Your task to perform on an android device: Add usb-c to the cart on target, then select checkout. Image 0: 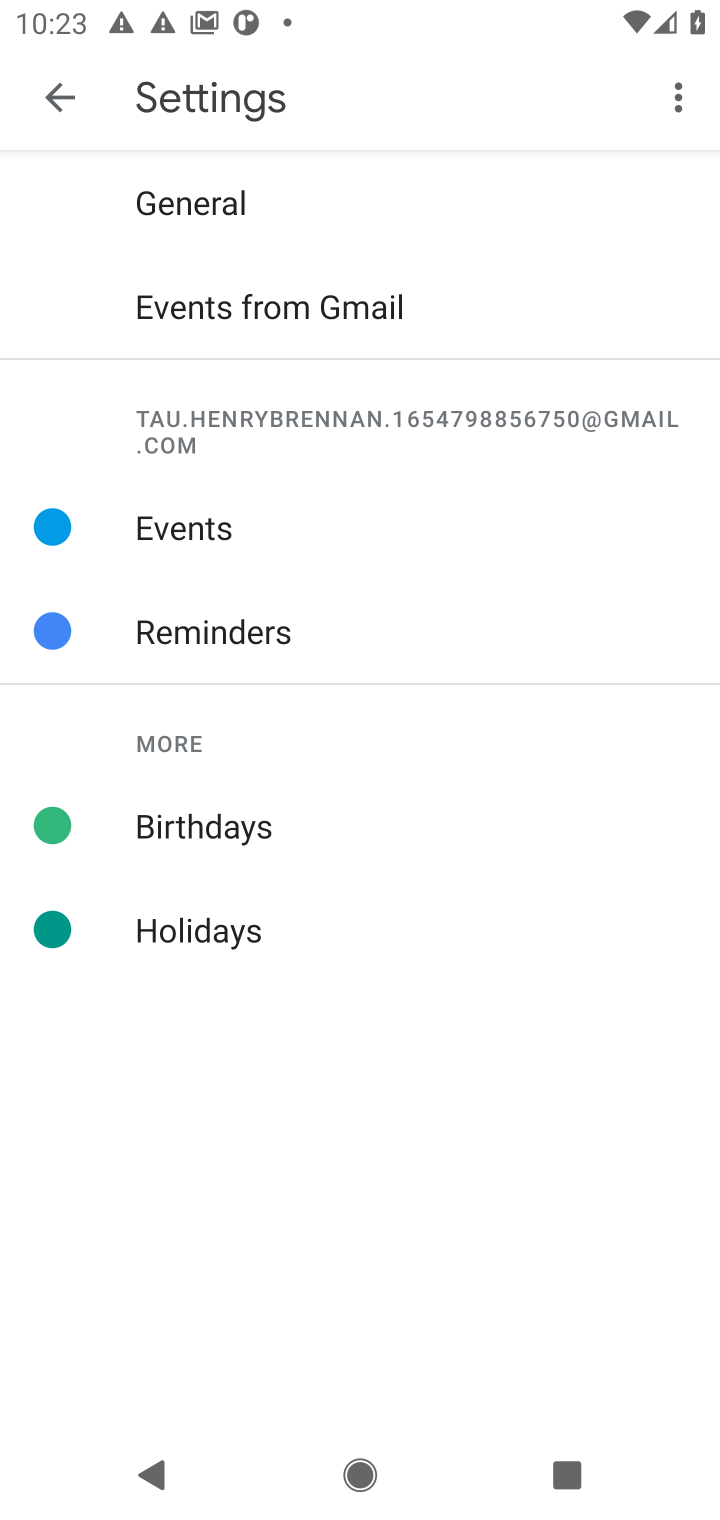
Step 0: press home button
Your task to perform on an android device: Add usb-c to the cart on target, then select checkout. Image 1: 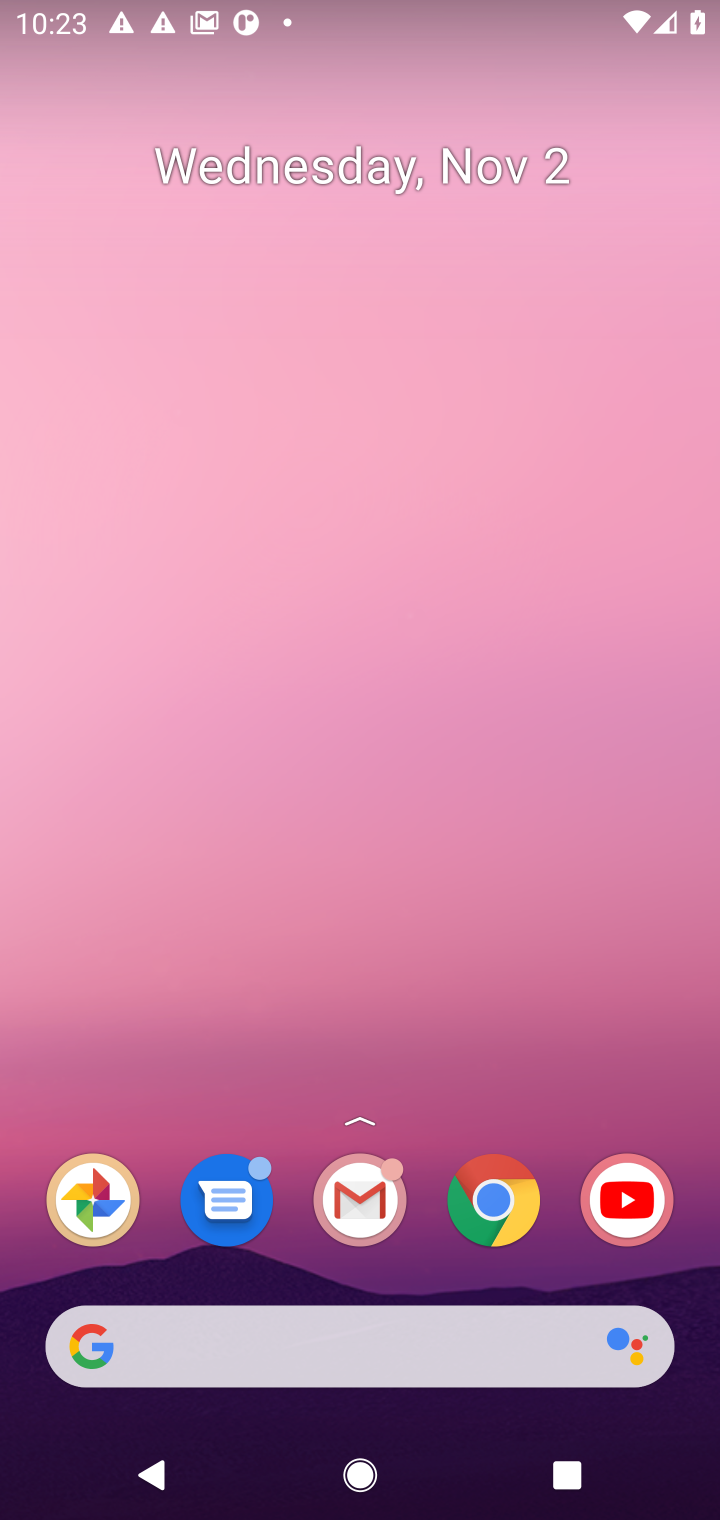
Step 1: click (520, 1187)
Your task to perform on an android device: Add usb-c to the cart on target, then select checkout. Image 2: 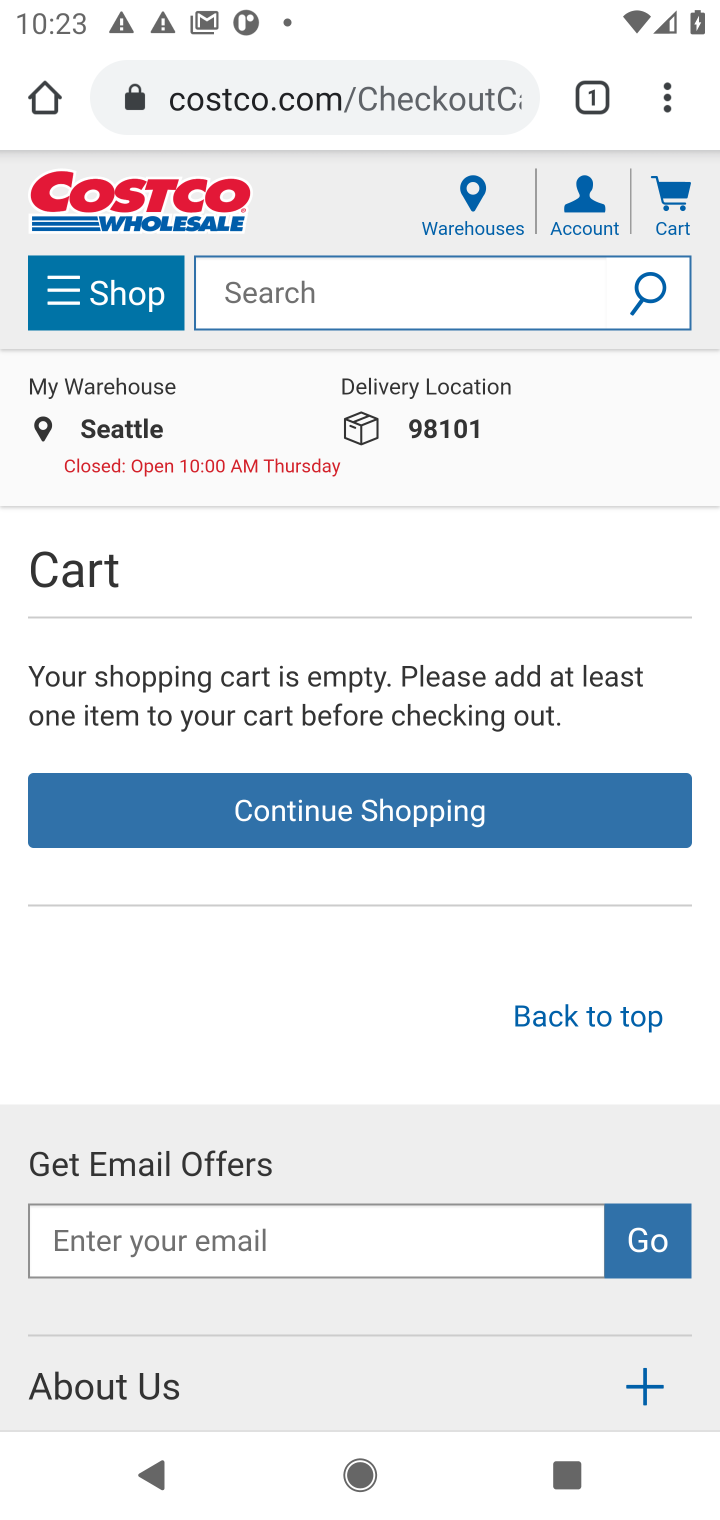
Step 2: click (417, 107)
Your task to perform on an android device: Add usb-c to the cart on target, then select checkout. Image 3: 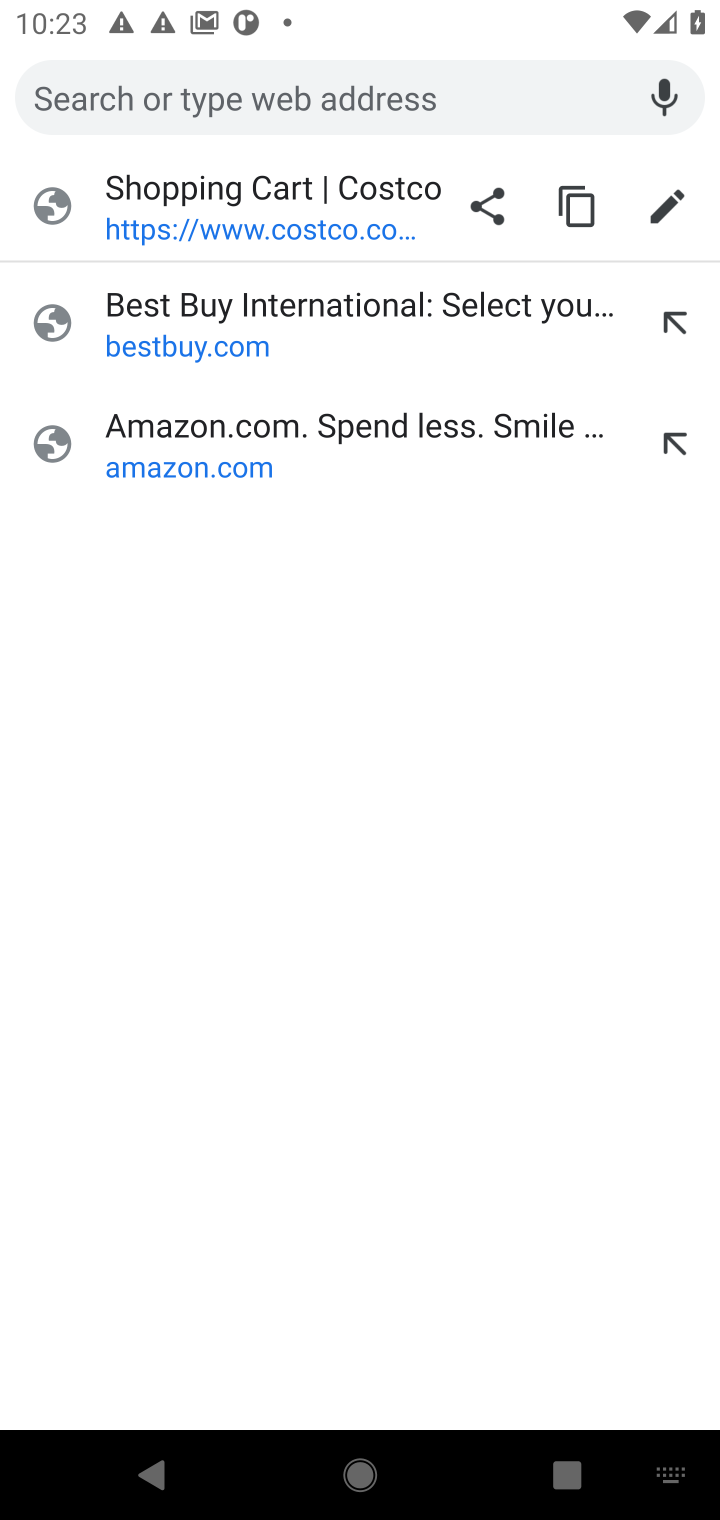
Step 3: type "target"
Your task to perform on an android device: Add usb-c to the cart on target, then select checkout. Image 4: 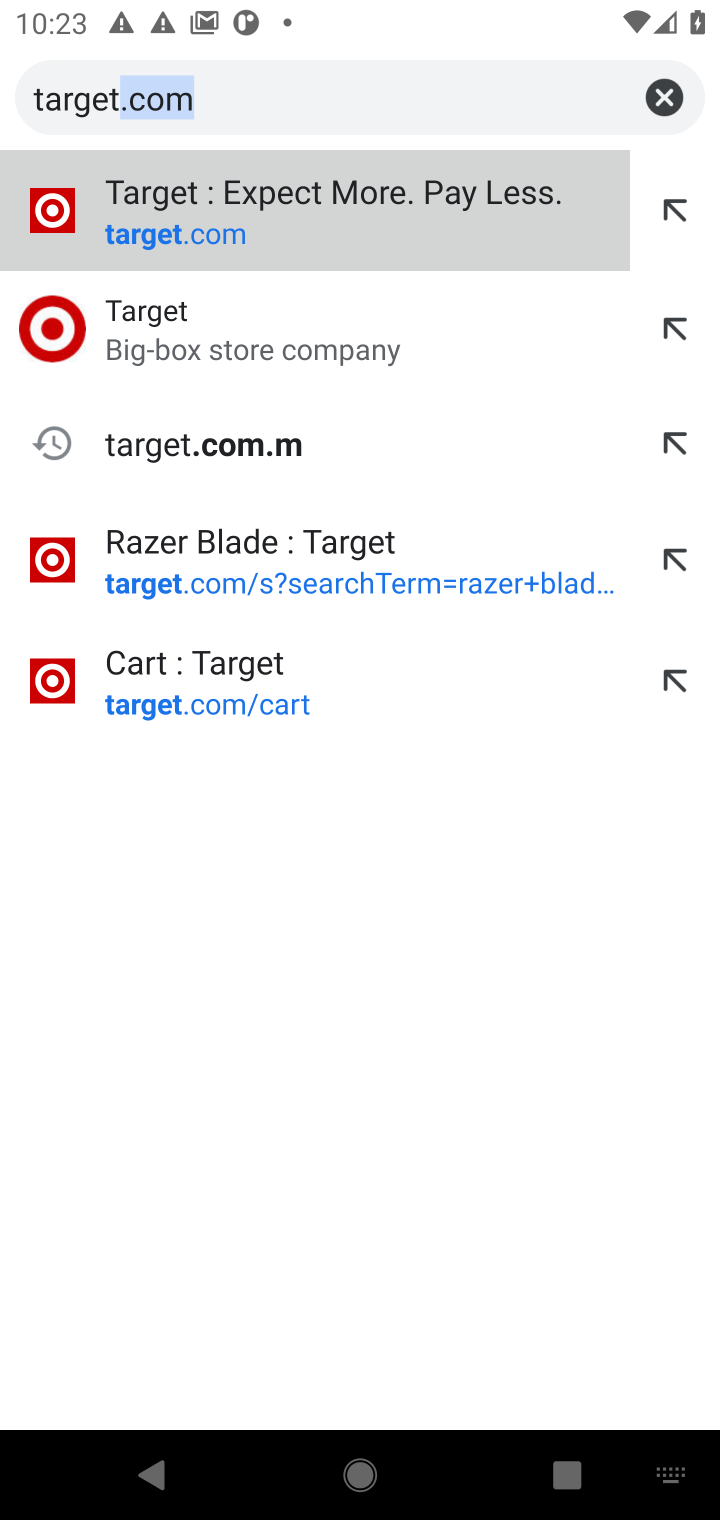
Step 4: press enter
Your task to perform on an android device: Add usb-c to the cart on target, then select checkout. Image 5: 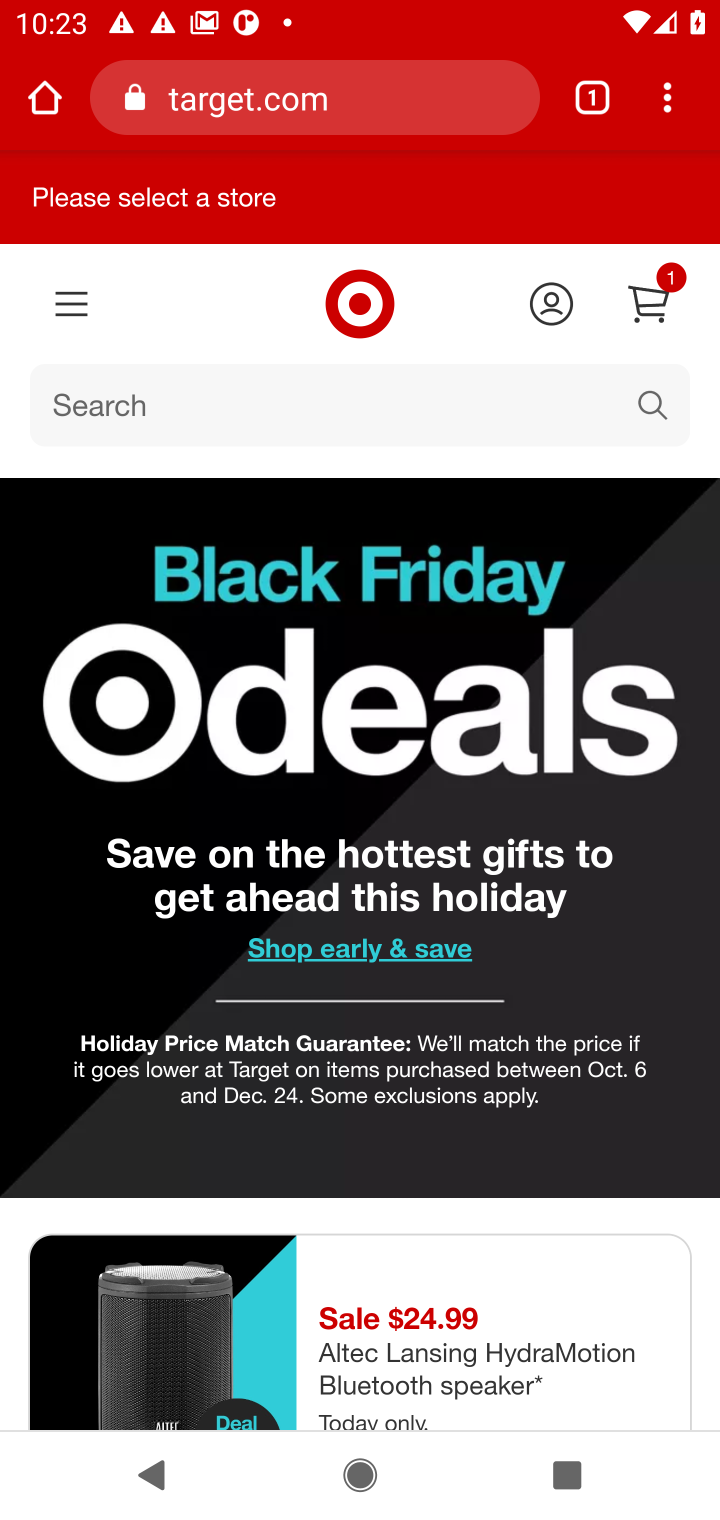
Step 5: click (480, 401)
Your task to perform on an android device: Add usb-c to the cart on target, then select checkout. Image 6: 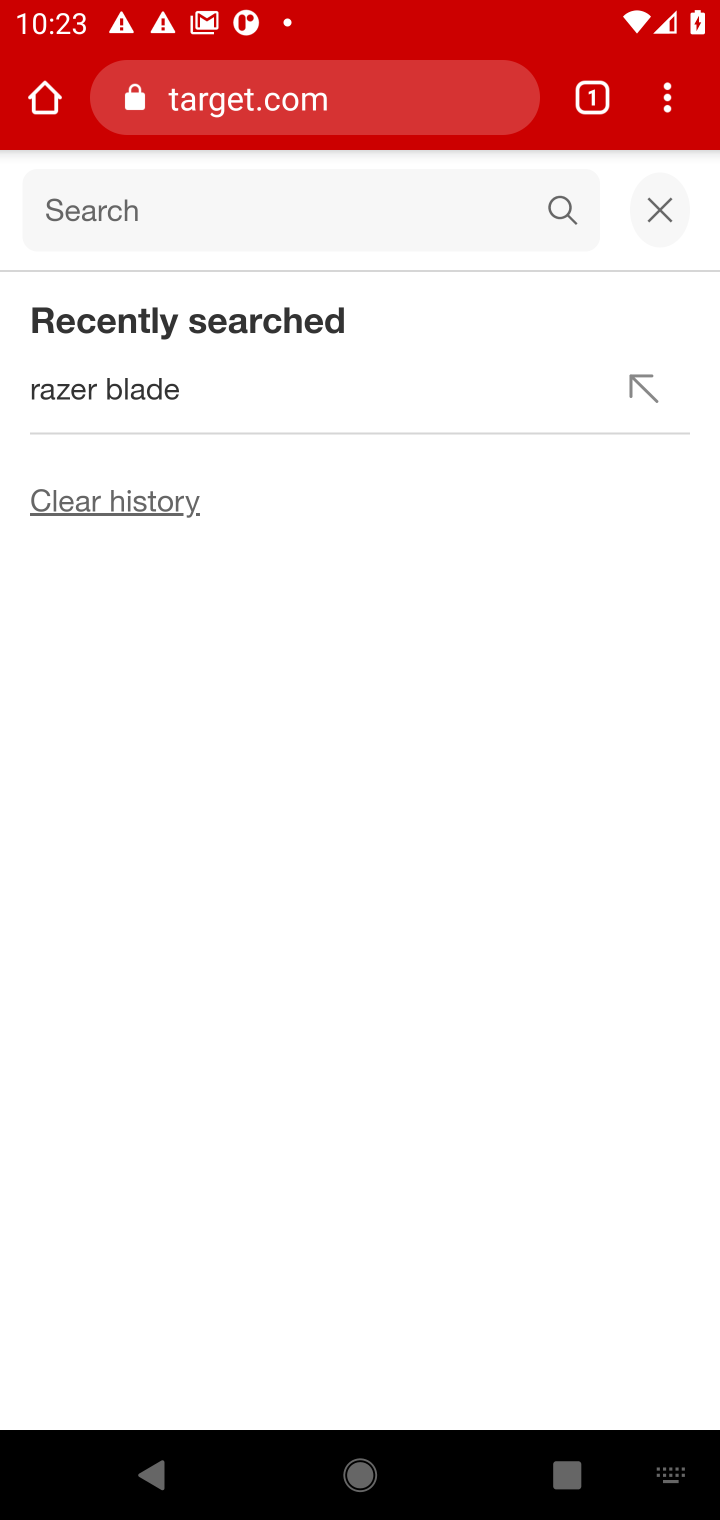
Step 6: type "usb-c "
Your task to perform on an android device: Add usb-c to the cart on target, then select checkout. Image 7: 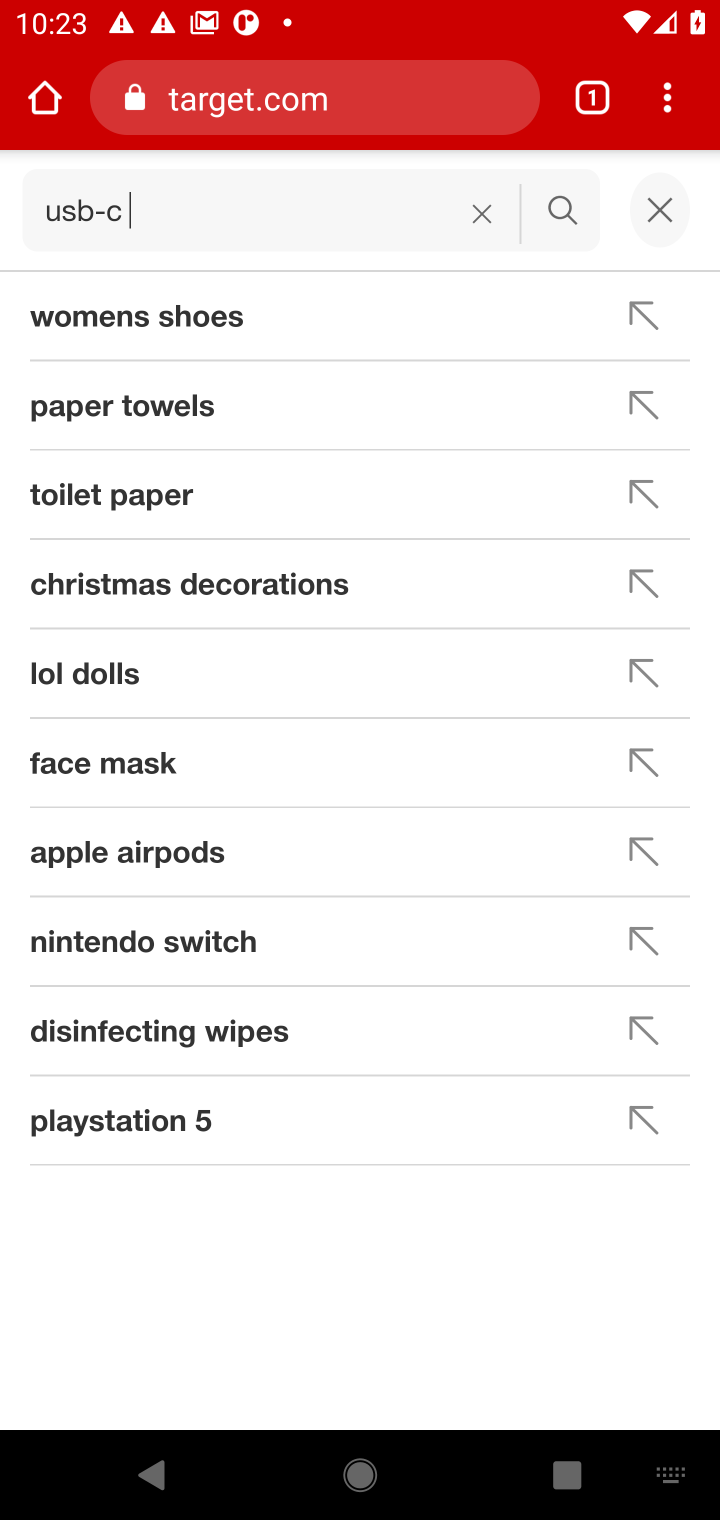
Step 7: press enter
Your task to perform on an android device: Add usb-c to the cart on target, then select checkout. Image 8: 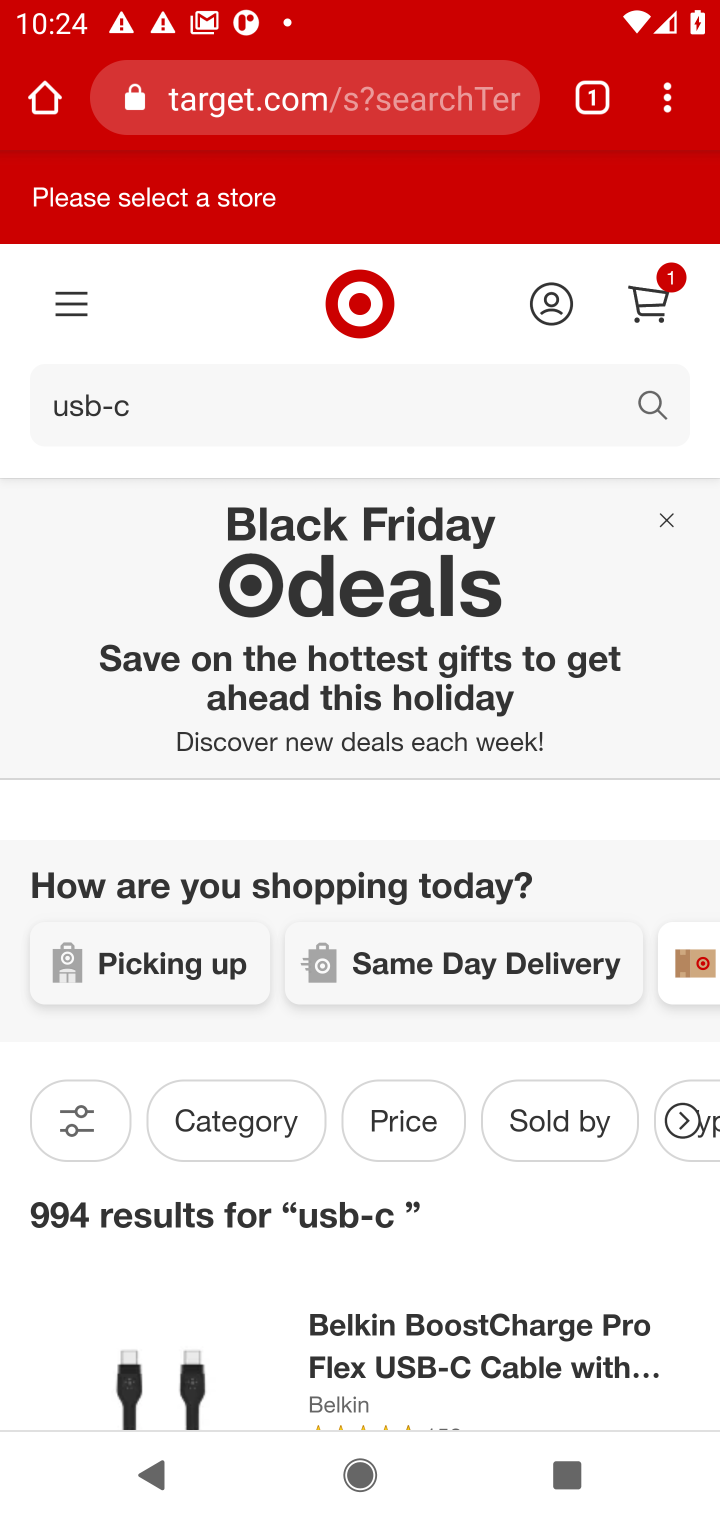
Step 8: drag from (527, 1230) to (536, 795)
Your task to perform on an android device: Add usb-c to the cart on target, then select checkout. Image 9: 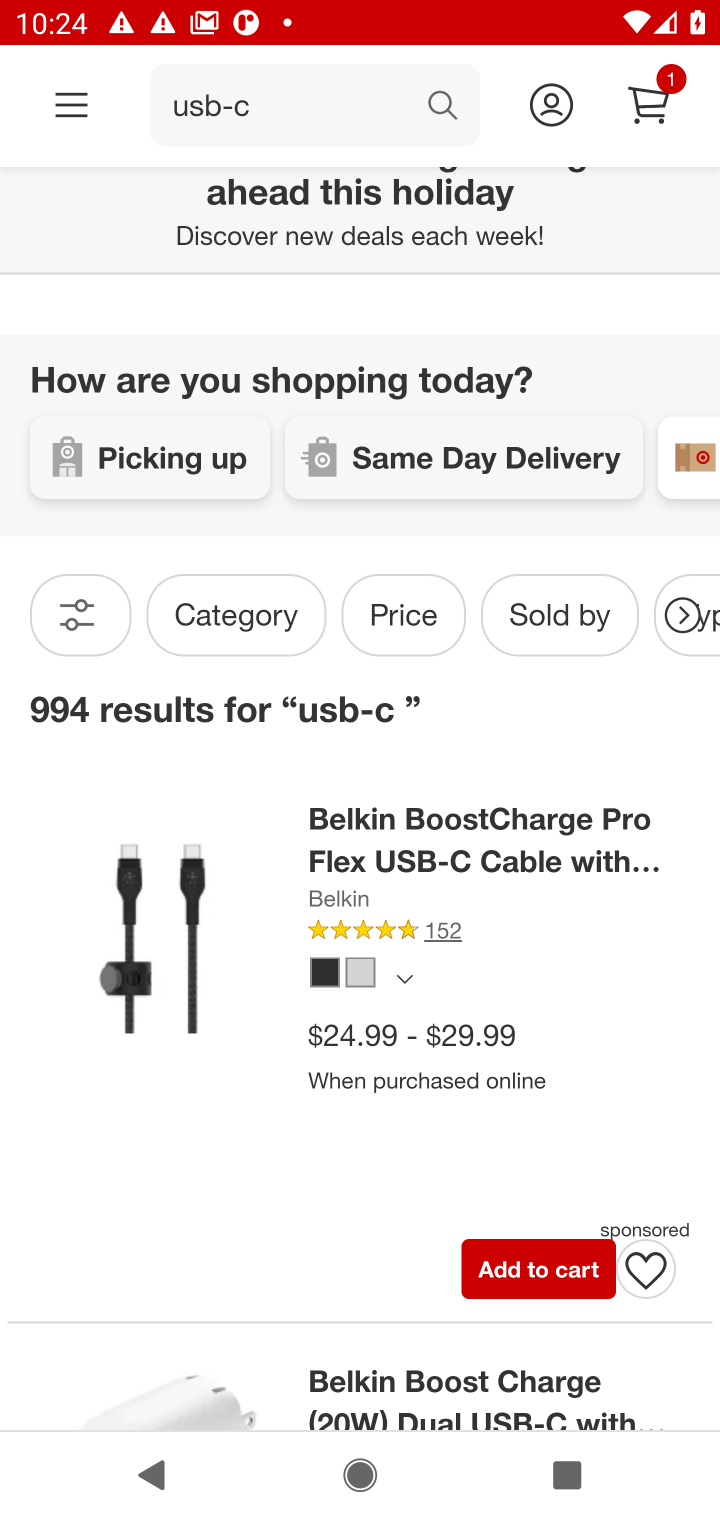
Step 9: click (154, 902)
Your task to perform on an android device: Add usb-c to the cart on target, then select checkout. Image 10: 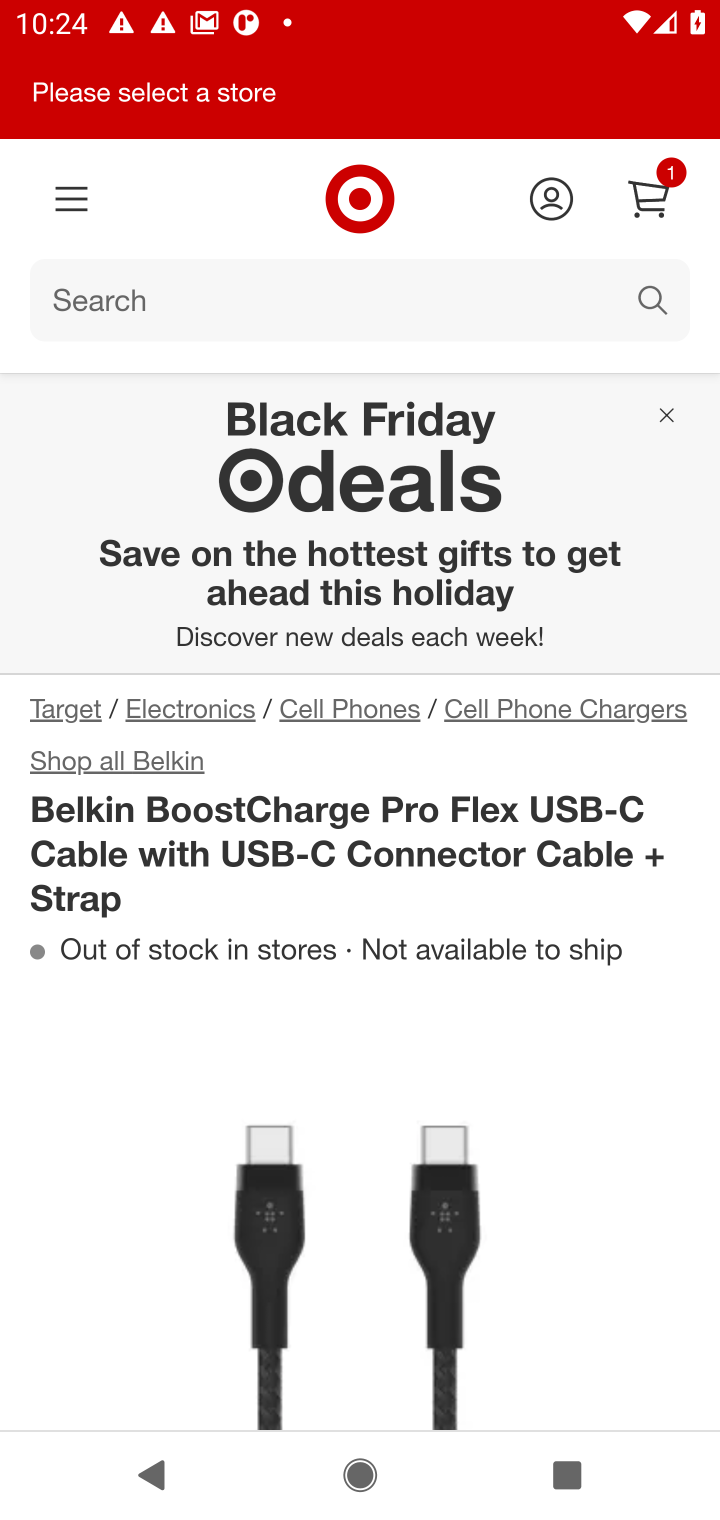
Step 10: drag from (338, 962) to (495, 364)
Your task to perform on an android device: Add usb-c to the cart on target, then select checkout. Image 11: 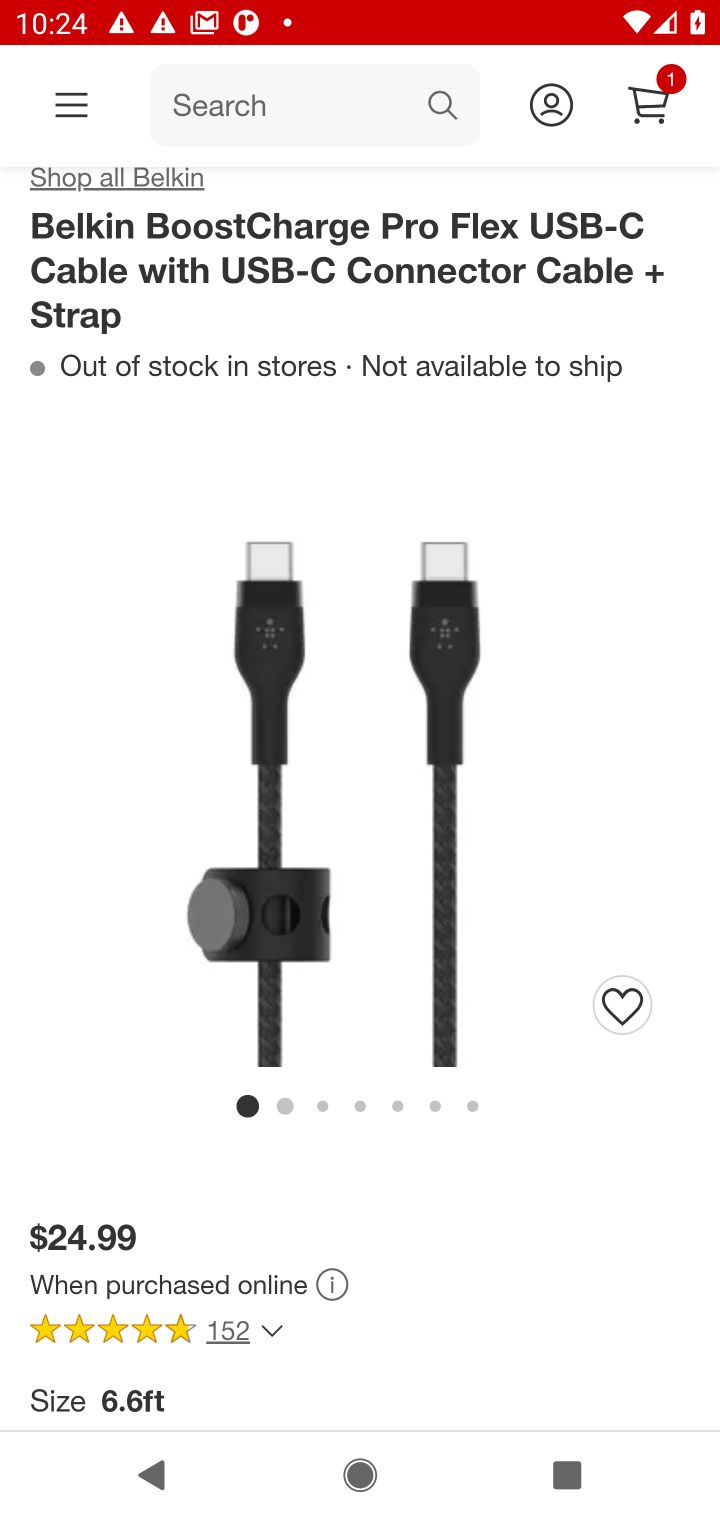
Step 11: drag from (461, 1212) to (517, 590)
Your task to perform on an android device: Add usb-c to the cart on target, then select checkout. Image 12: 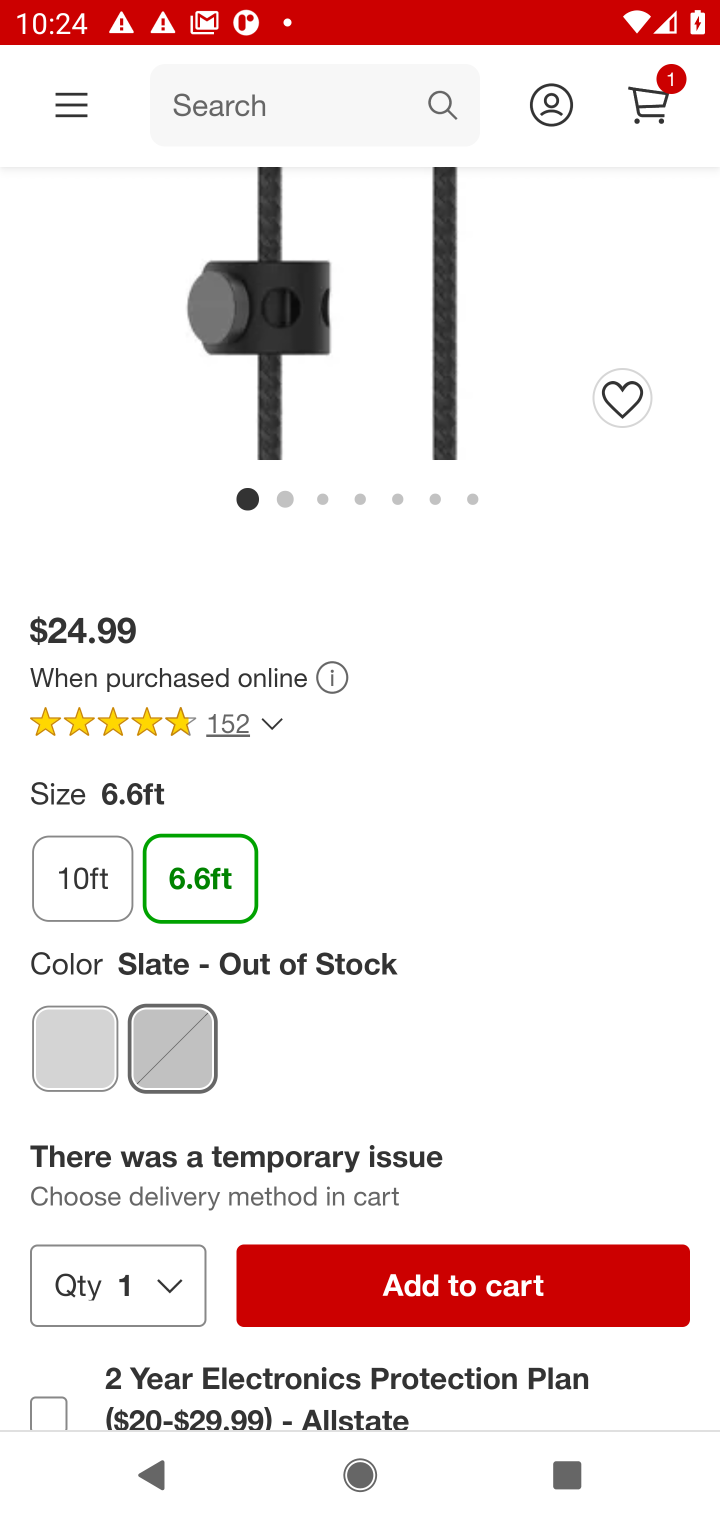
Step 12: click (508, 1285)
Your task to perform on an android device: Add usb-c to the cart on target, then select checkout. Image 13: 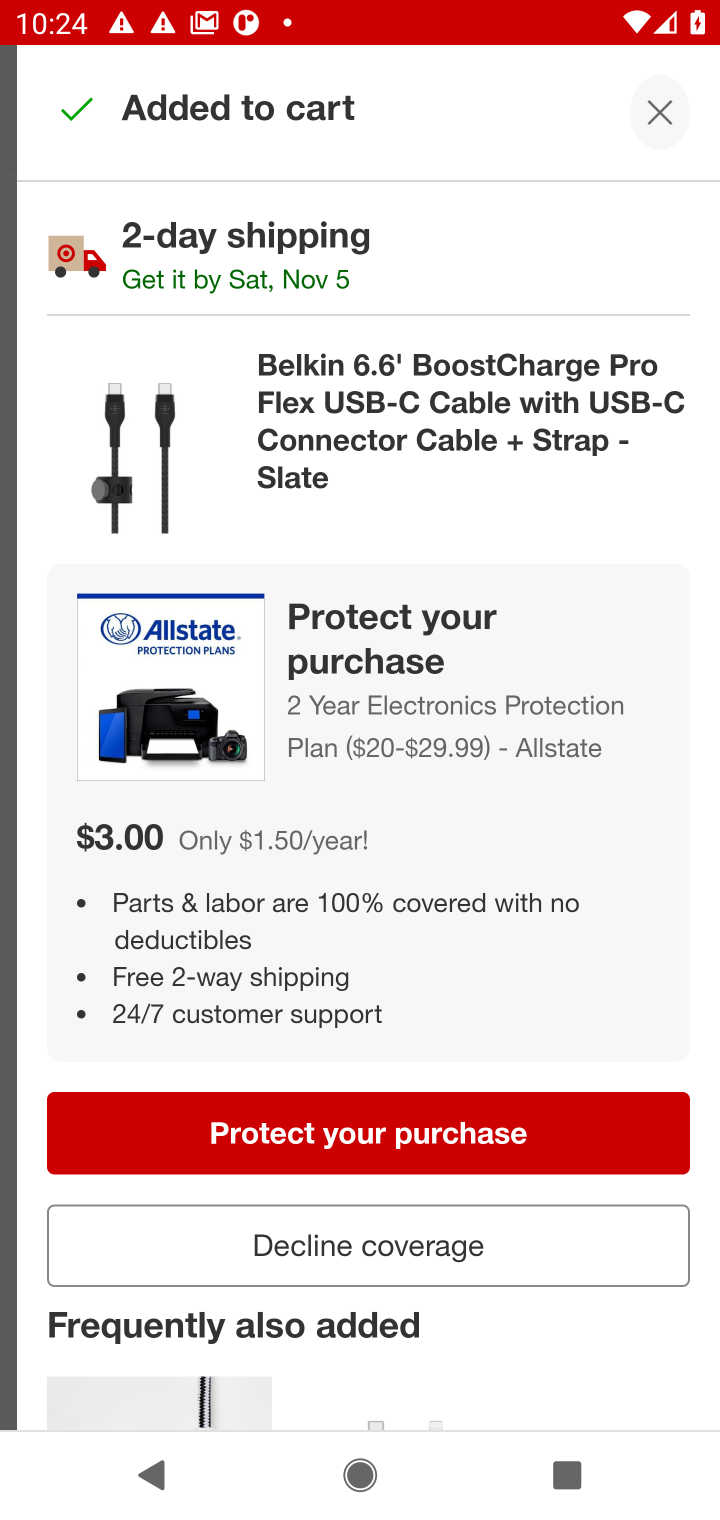
Step 13: drag from (624, 882) to (608, 412)
Your task to perform on an android device: Add usb-c to the cart on target, then select checkout. Image 14: 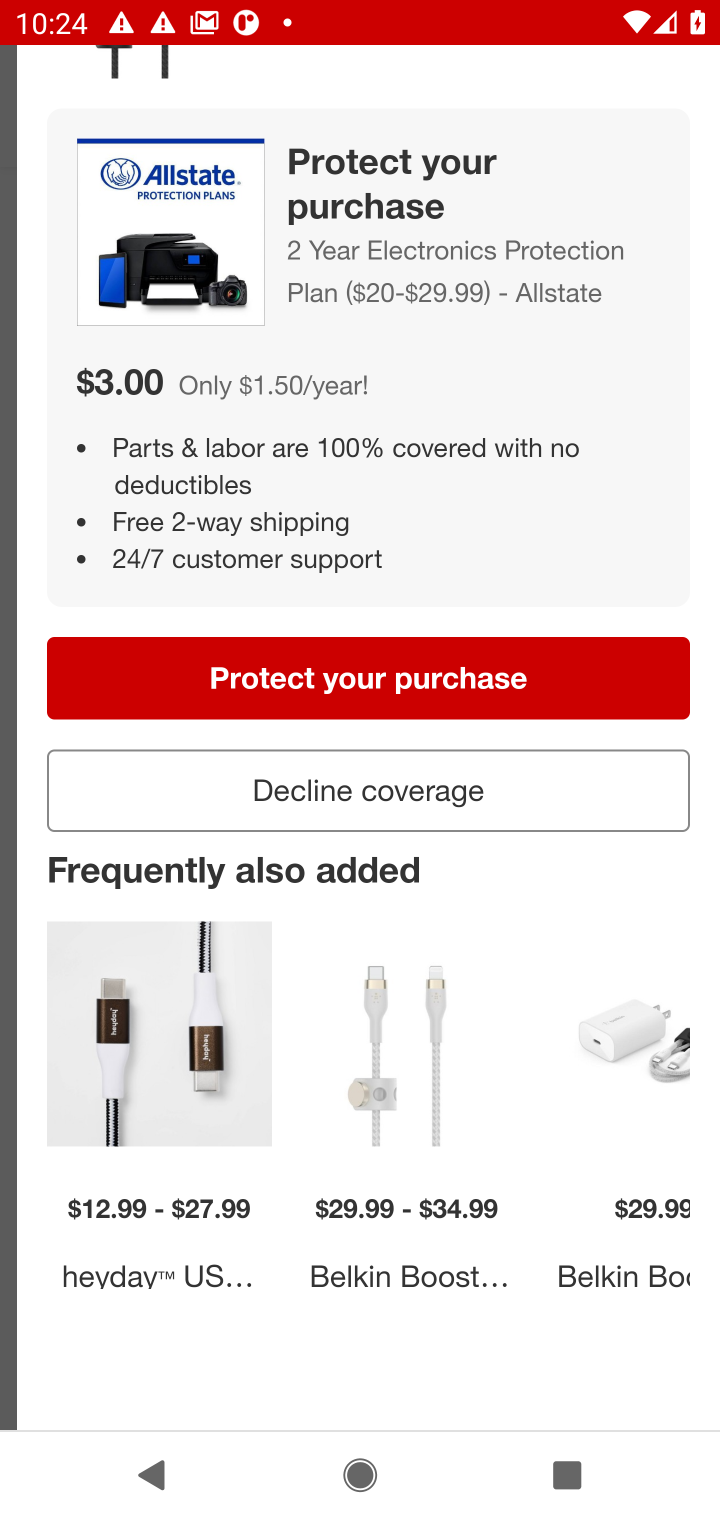
Step 14: drag from (550, 337) to (587, 1240)
Your task to perform on an android device: Add usb-c to the cart on target, then select checkout. Image 15: 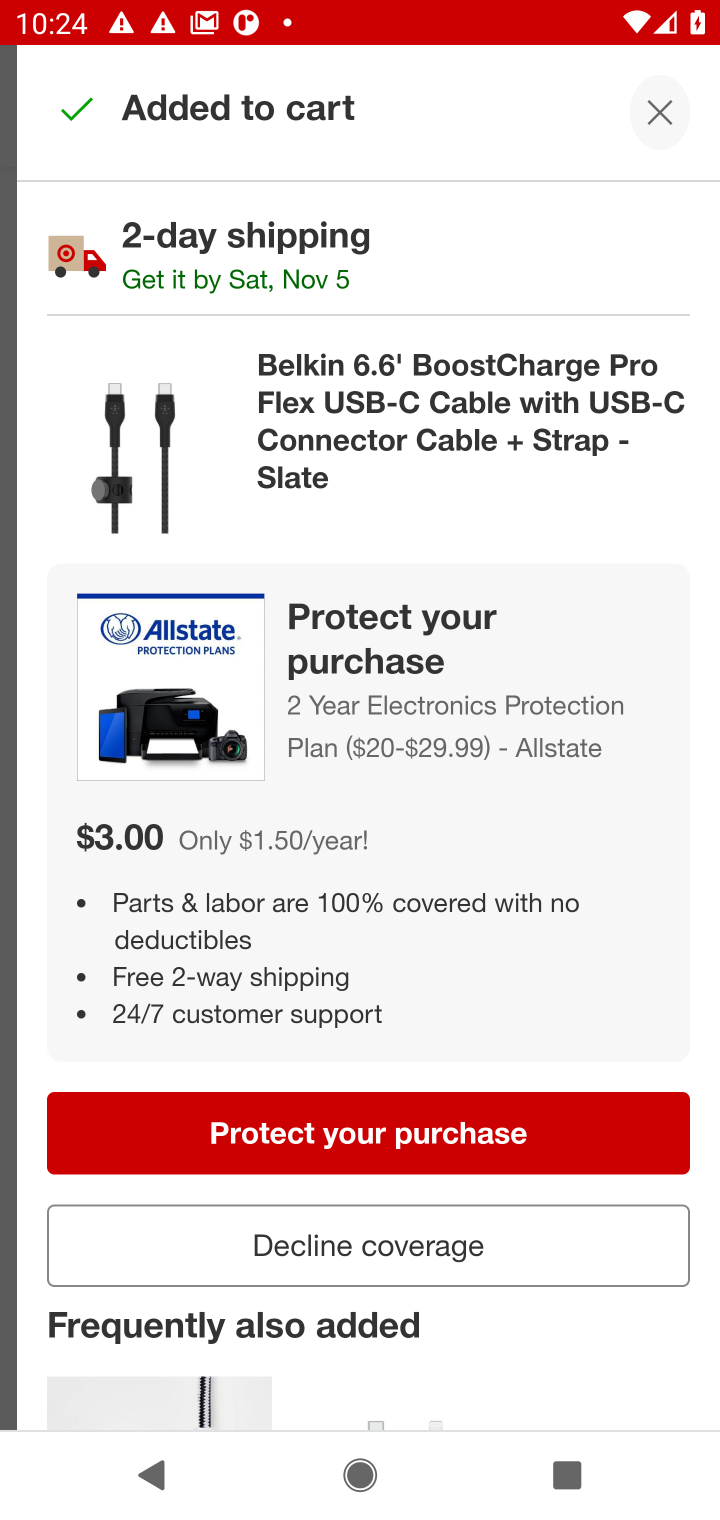
Step 15: click (650, 105)
Your task to perform on an android device: Add usb-c to the cart on target, then select checkout. Image 16: 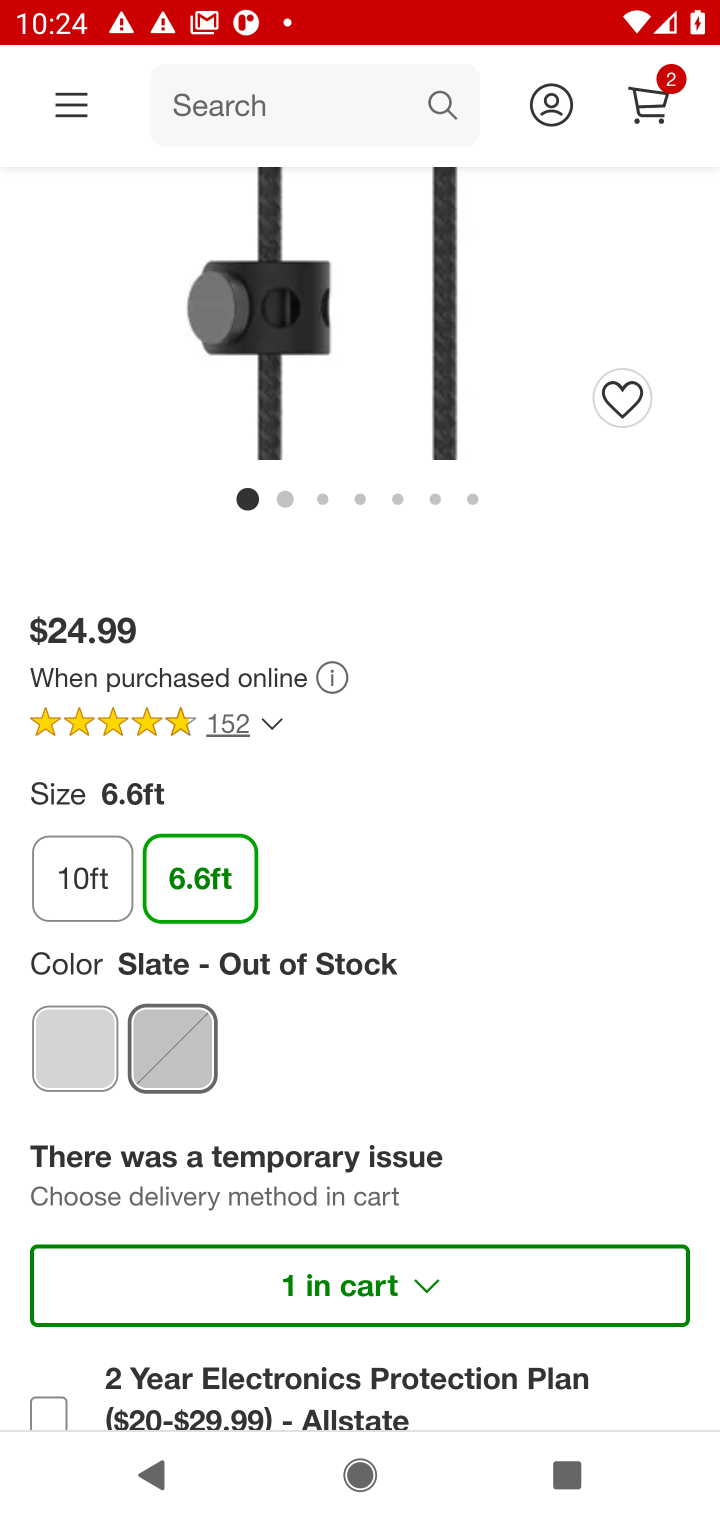
Step 16: click (658, 106)
Your task to perform on an android device: Add usb-c to the cart on target, then select checkout. Image 17: 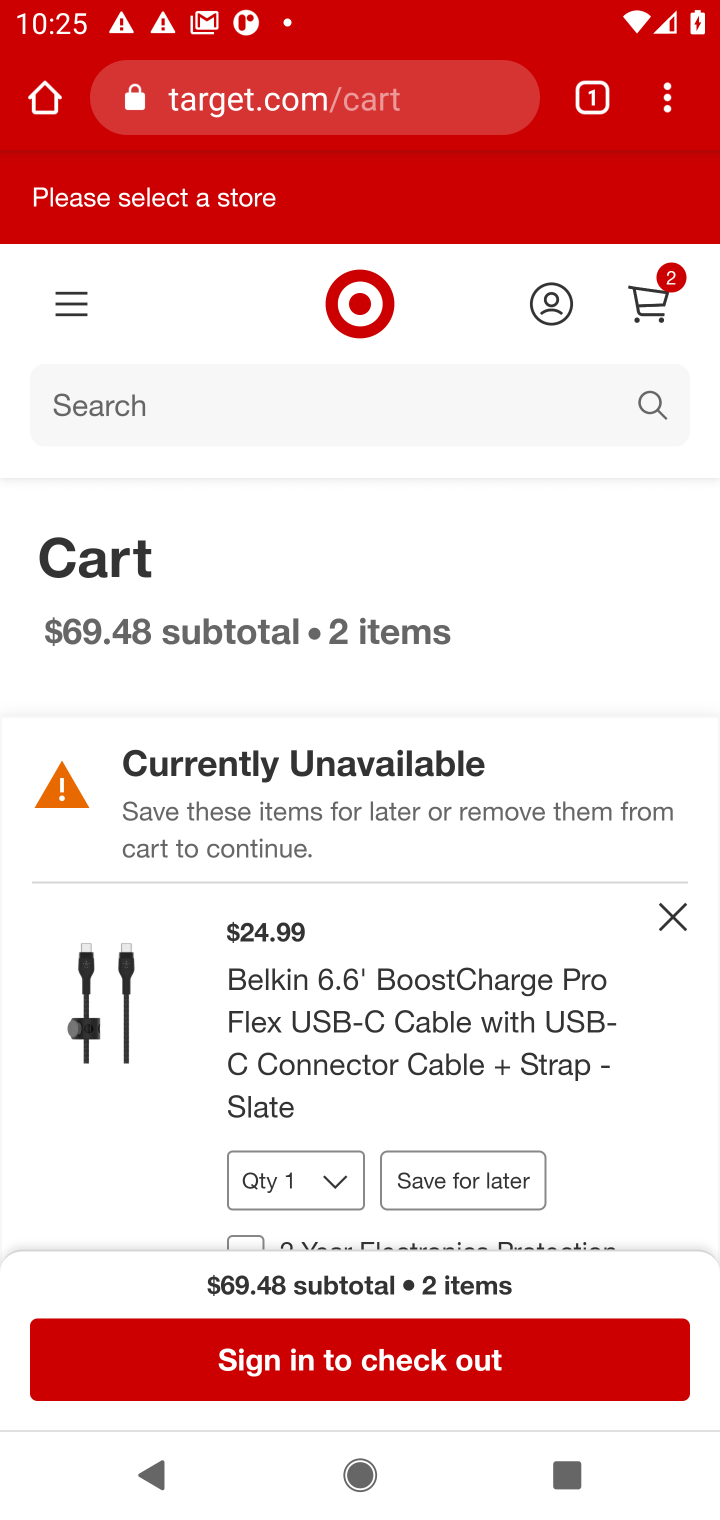
Step 17: click (457, 1361)
Your task to perform on an android device: Add usb-c to the cart on target, then select checkout. Image 18: 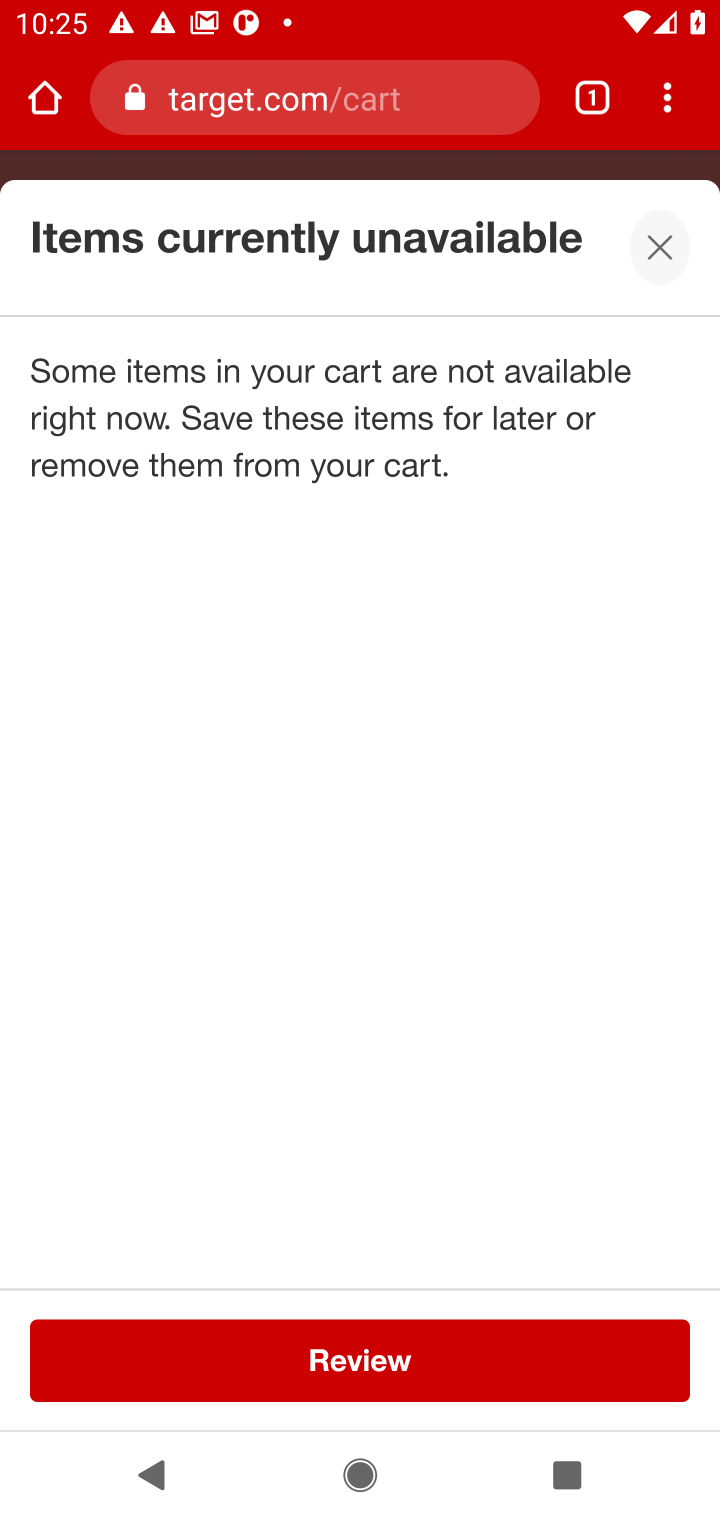
Step 18: task complete